Your task to perform on an android device: open chrome and create a bookmark for the current page Image 0: 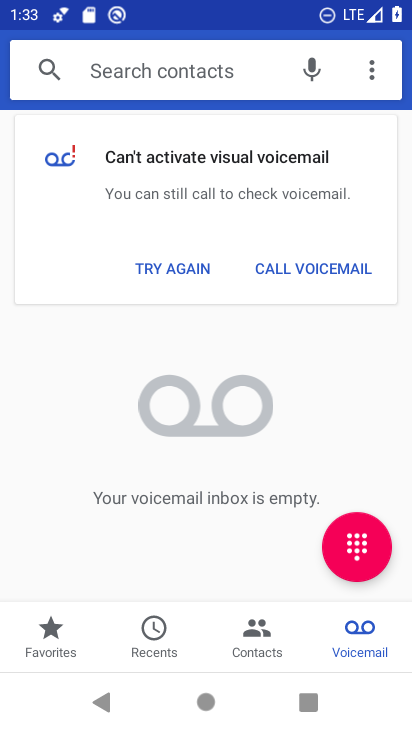
Step 0: press home button
Your task to perform on an android device: open chrome and create a bookmark for the current page Image 1: 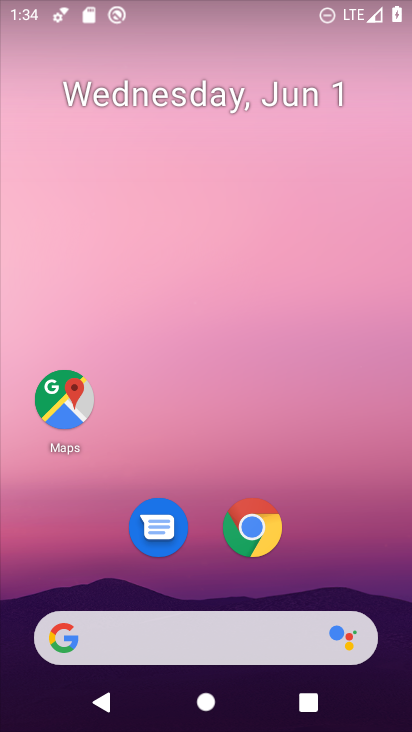
Step 1: click (258, 535)
Your task to perform on an android device: open chrome and create a bookmark for the current page Image 2: 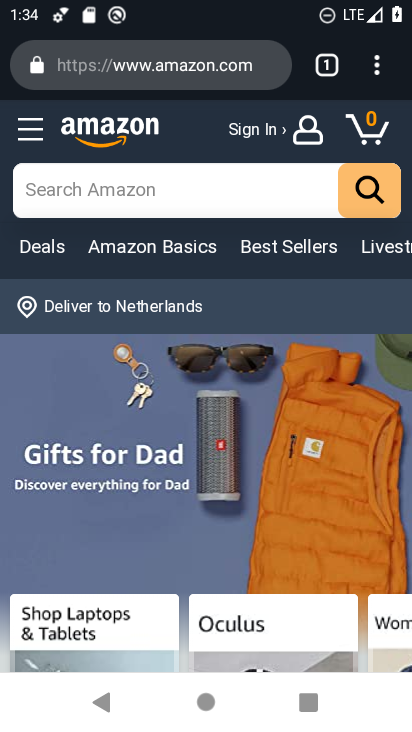
Step 2: click (376, 71)
Your task to perform on an android device: open chrome and create a bookmark for the current page Image 3: 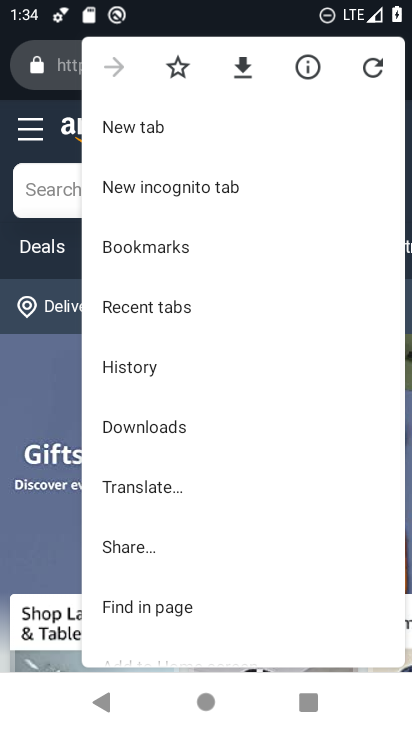
Step 3: click (180, 68)
Your task to perform on an android device: open chrome and create a bookmark for the current page Image 4: 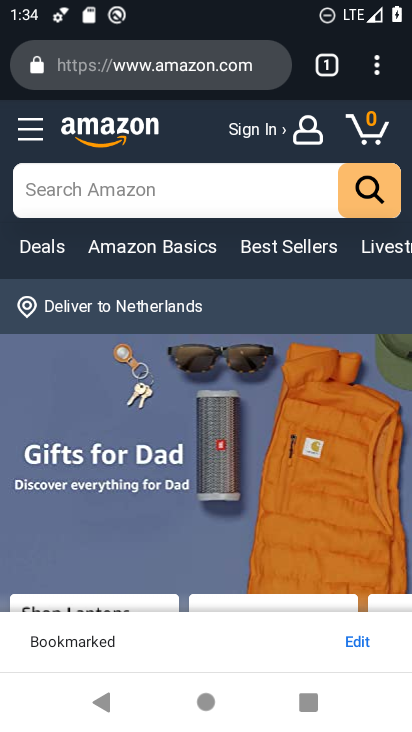
Step 4: task complete